Your task to perform on an android device: stop showing notifications on the lock screen Image 0: 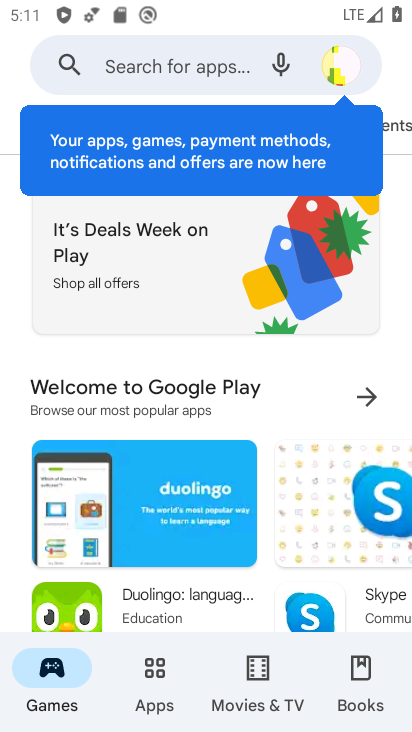
Step 0: press home button
Your task to perform on an android device: stop showing notifications on the lock screen Image 1: 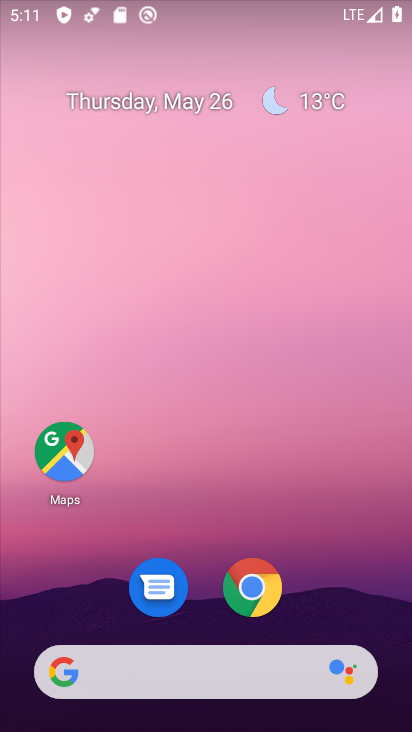
Step 1: drag from (235, 723) to (212, 233)
Your task to perform on an android device: stop showing notifications on the lock screen Image 2: 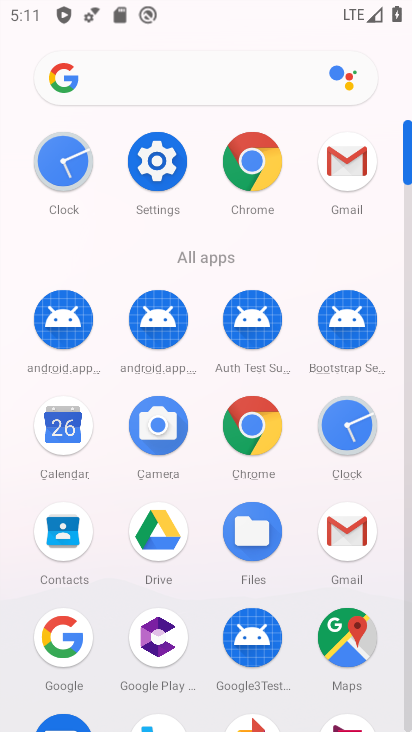
Step 2: click (153, 163)
Your task to perform on an android device: stop showing notifications on the lock screen Image 3: 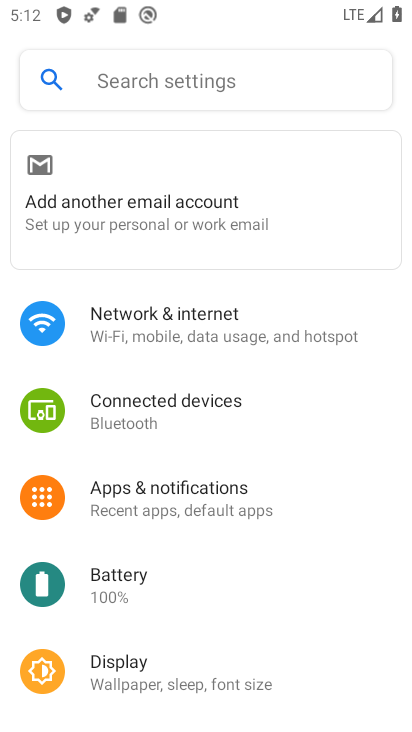
Step 3: click (168, 497)
Your task to perform on an android device: stop showing notifications on the lock screen Image 4: 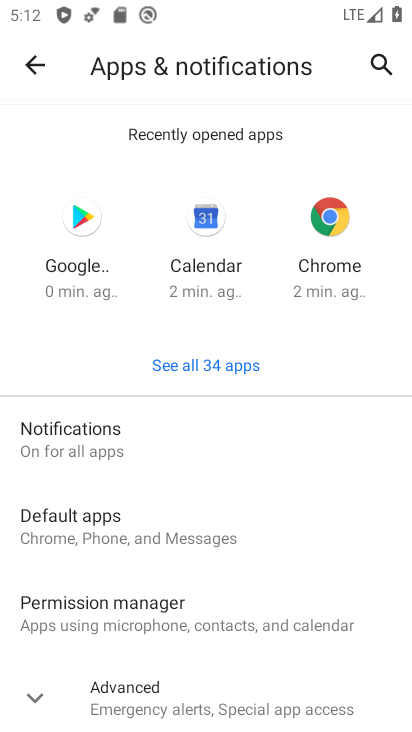
Step 4: click (80, 445)
Your task to perform on an android device: stop showing notifications on the lock screen Image 5: 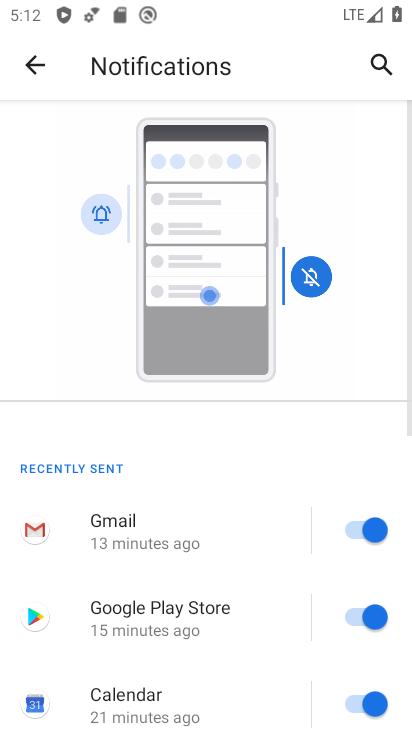
Step 5: drag from (226, 707) to (224, 453)
Your task to perform on an android device: stop showing notifications on the lock screen Image 6: 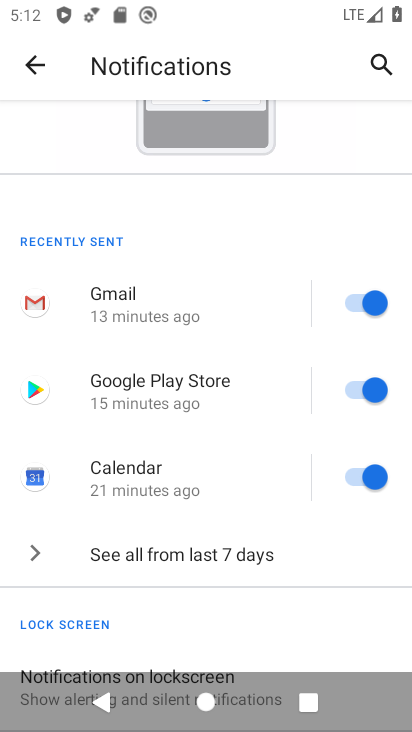
Step 6: drag from (226, 656) to (227, 292)
Your task to perform on an android device: stop showing notifications on the lock screen Image 7: 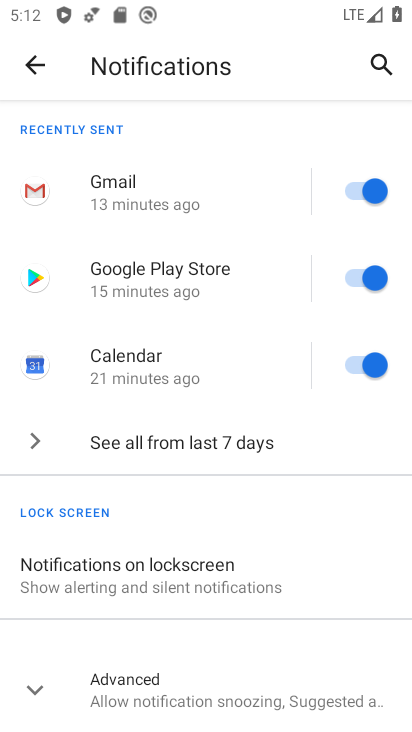
Step 7: click (129, 573)
Your task to perform on an android device: stop showing notifications on the lock screen Image 8: 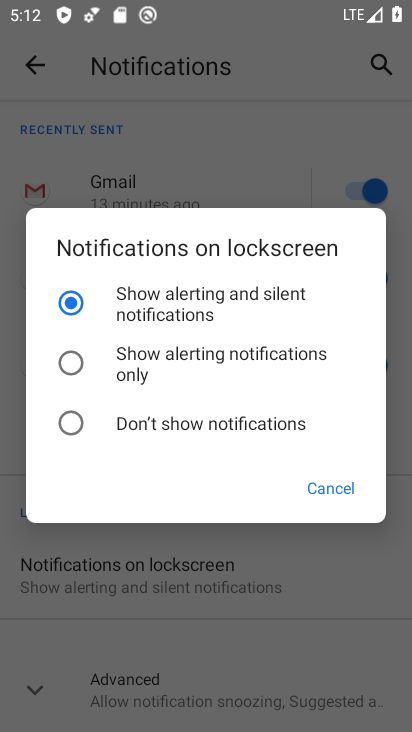
Step 8: click (72, 419)
Your task to perform on an android device: stop showing notifications on the lock screen Image 9: 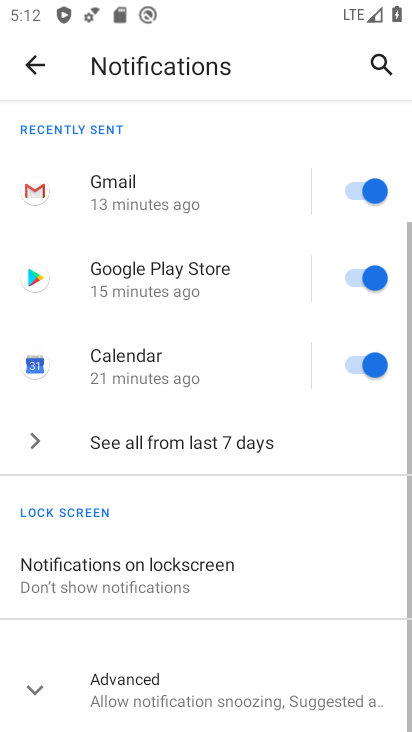
Step 9: task complete